Your task to perform on an android device: toggle location history Image 0: 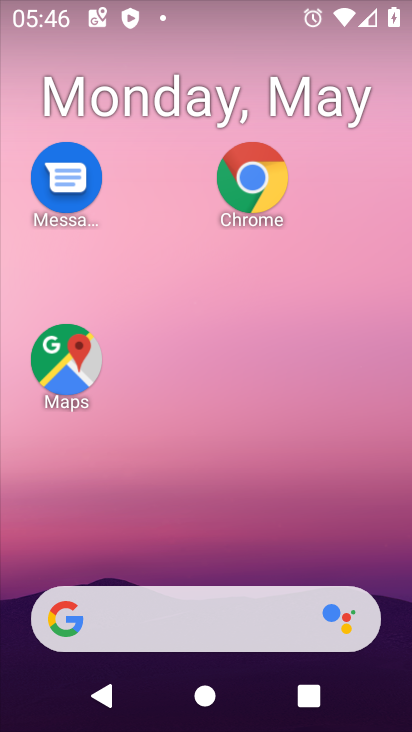
Step 0: drag from (204, 556) to (179, 61)
Your task to perform on an android device: toggle location history Image 1: 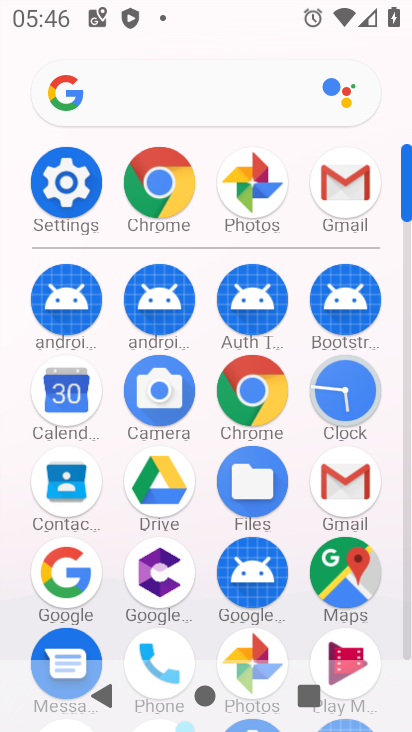
Step 1: click (59, 203)
Your task to perform on an android device: toggle location history Image 2: 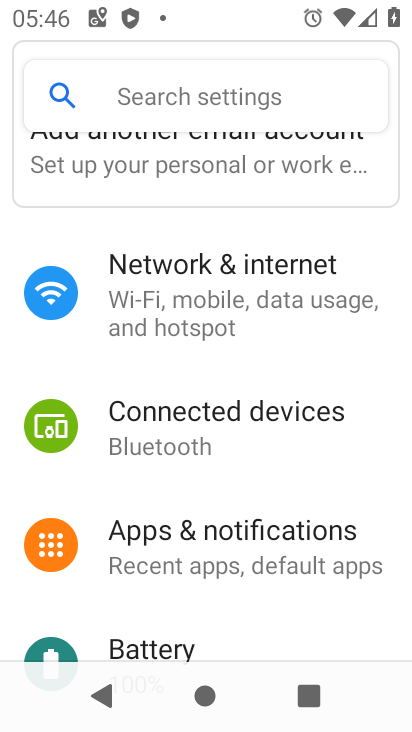
Step 2: drag from (240, 578) to (249, 265)
Your task to perform on an android device: toggle location history Image 3: 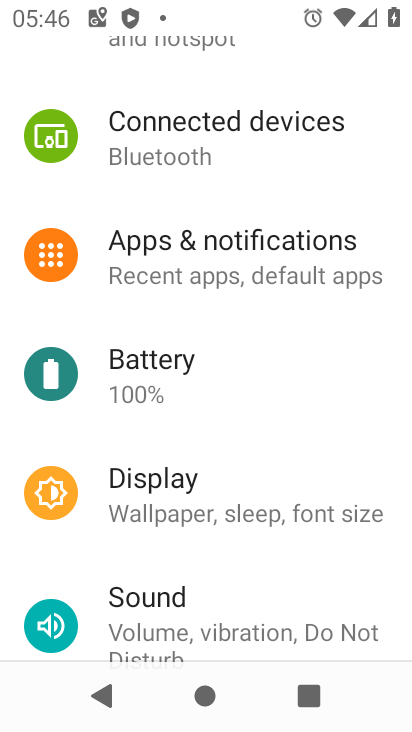
Step 3: drag from (188, 587) to (184, 159)
Your task to perform on an android device: toggle location history Image 4: 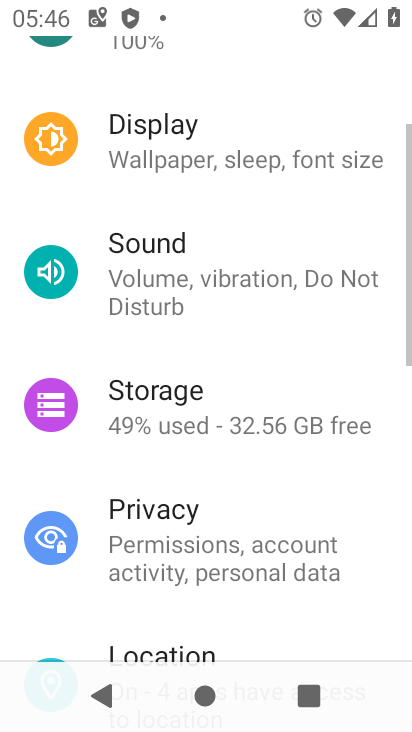
Step 4: drag from (195, 548) to (189, 123)
Your task to perform on an android device: toggle location history Image 5: 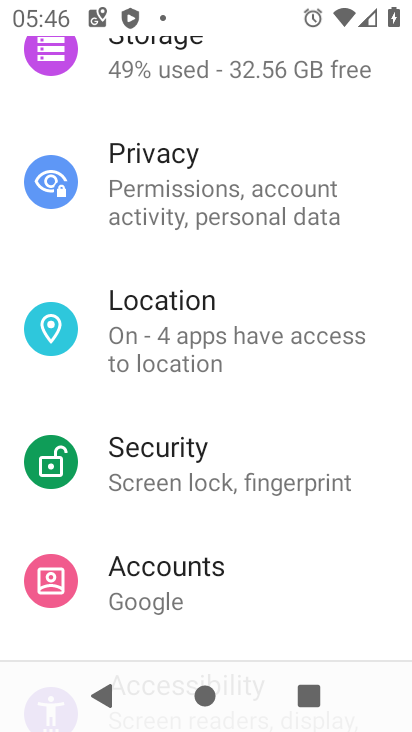
Step 5: click (148, 348)
Your task to perform on an android device: toggle location history Image 6: 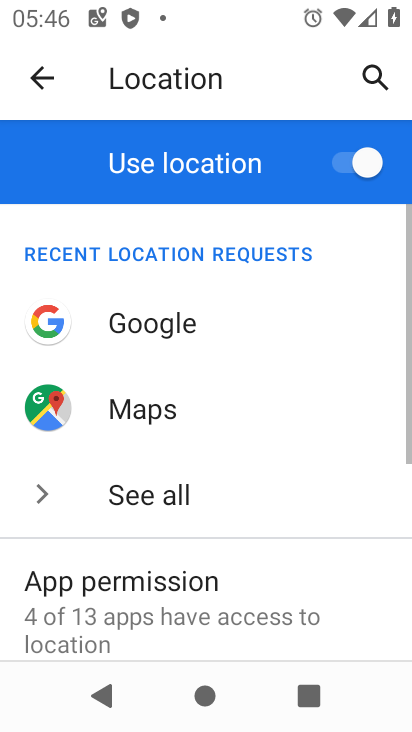
Step 6: drag from (174, 505) to (174, 214)
Your task to perform on an android device: toggle location history Image 7: 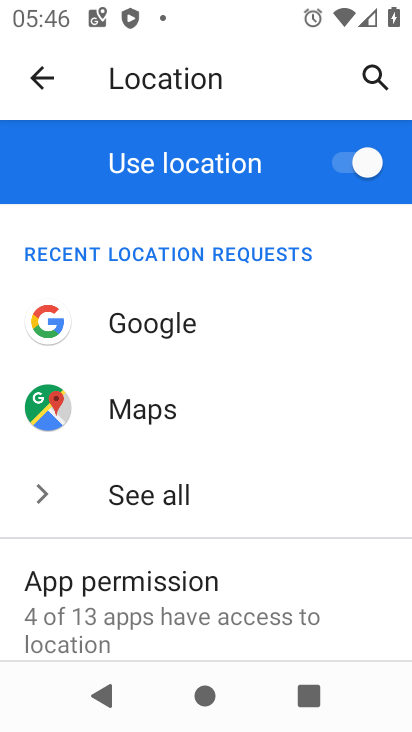
Step 7: drag from (181, 556) to (181, 158)
Your task to perform on an android device: toggle location history Image 8: 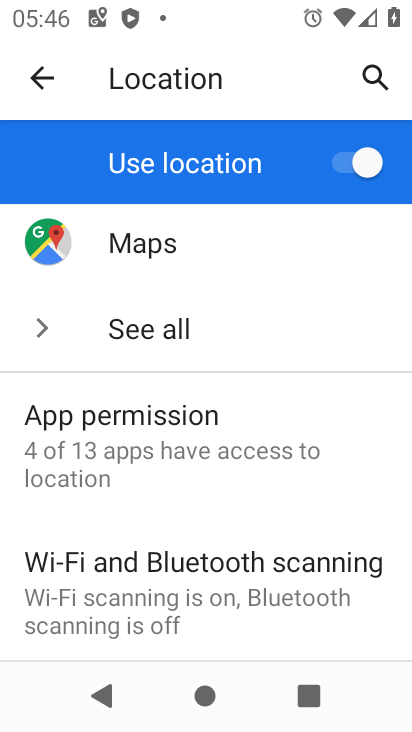
Step 8: drag from (160, 545) to (172, 162)
Your task to perform on an android device: toggle location history Image 9: 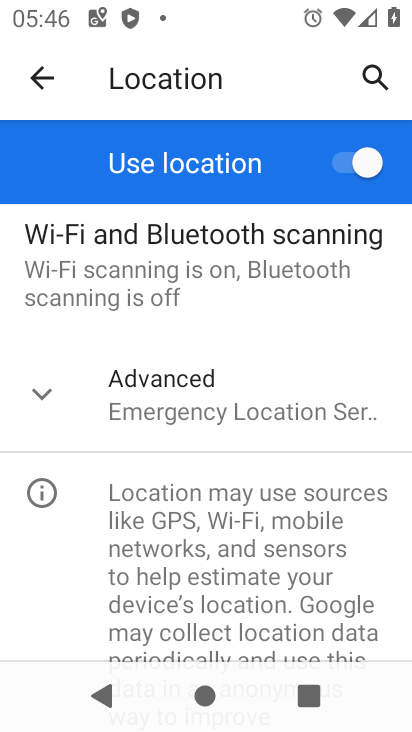
Step 9: click (122, 409)
Your task to perform on an android device: toggle location history Image 10: 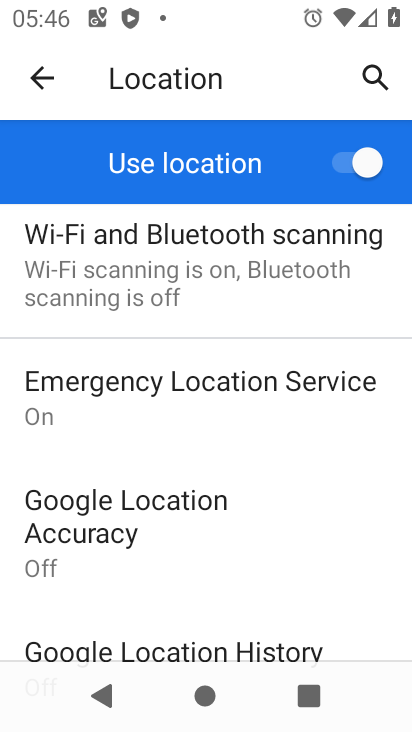
Step 10: drag from (156, 605) to (146, 137)
Your task to perform on an android device: toggle location history Image 11: 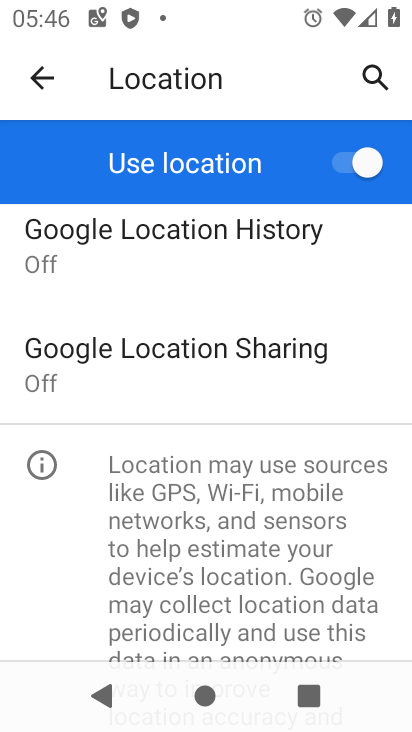
Step 11: click (178, 284)
Your task to perform on an android device: toggle location history Image 12: 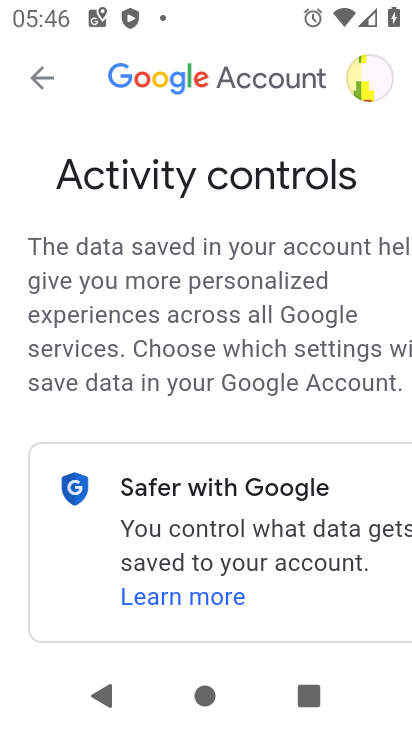
Step 12: drag from (224, 303) to (211, 228)
Your task to perform on an android device: toggle location history Image 13: 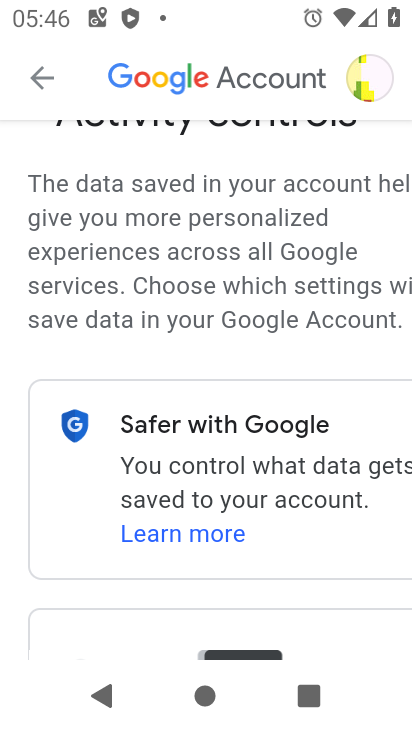
Step 13: drag from (231, 571) to (204, 173)
Your task to perform on an android device: toggle location history Image 14: 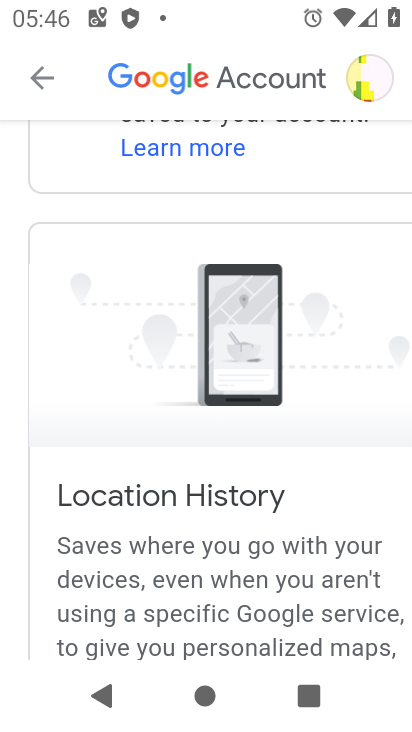
Step 14: drag from (295, 502) to (309, 150)
Your task to perform on an android device: toggle location history Image 15: 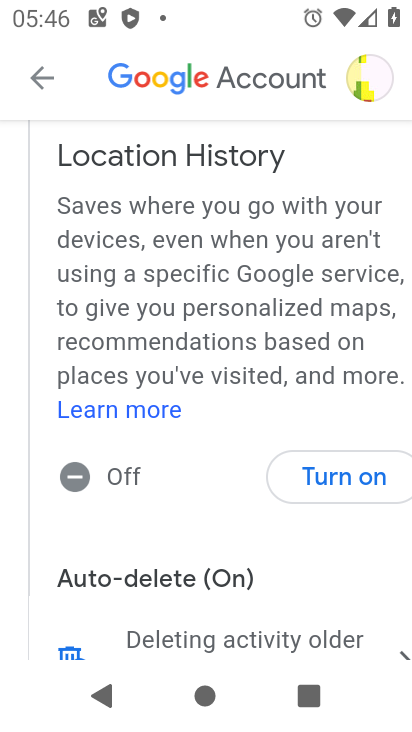
Step 15: click (326, 482)
Your task to perform on an android device: toggle location history Image 16: 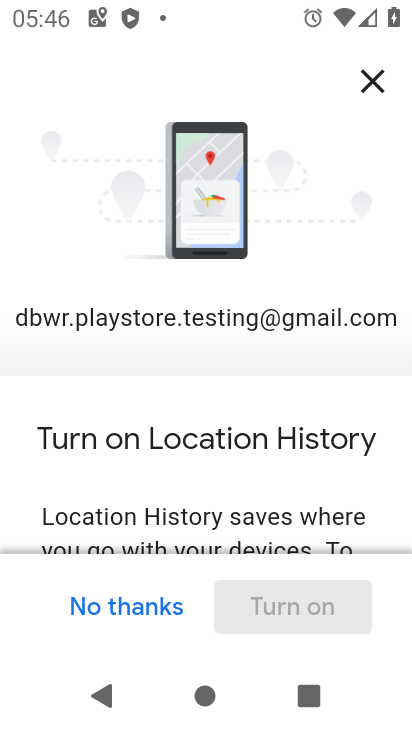
Step 16: drag from (215, 487) to (200, 60)
Your task to perform on an android device: toggle location history Image 17: 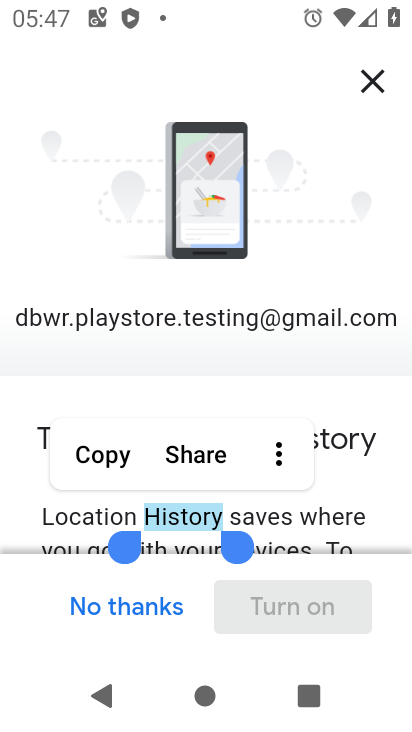
Step 17: click (283, 518)
Your task to perform on an android device: toggle location history Image 18: 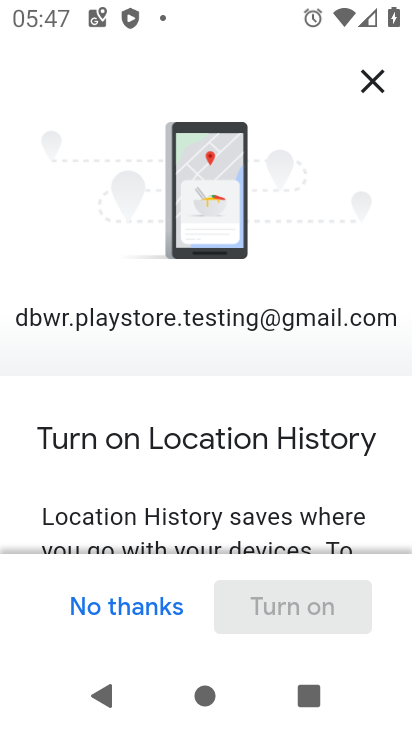
Step 18: drag from (275, 488) to (221, 76)
Your task to perform on an android device: toggle location history Image 19: 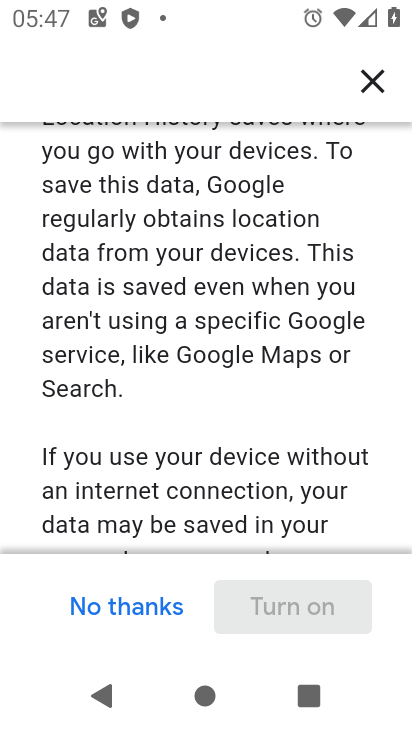
Step 19: drag from (192, 507) to (186, 124)
Your task to perform on an android device: toggle location history Image 20: 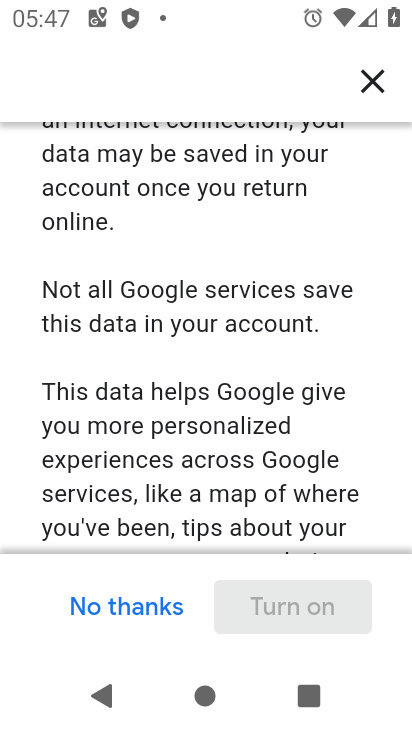
Step 20: drag from (171, 485) to (202, 57)
Your task to perform on an android device: toggle location history Image 21: 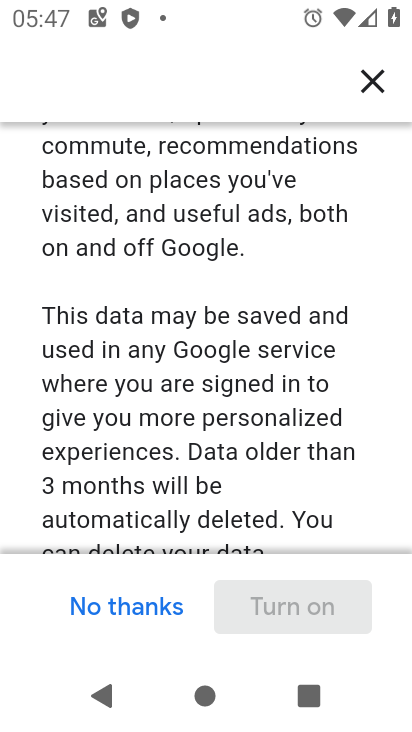
Step 21: drag from (252, 496) to (258, 0)
Your task to perform on an android device: toggle location history Image 22: 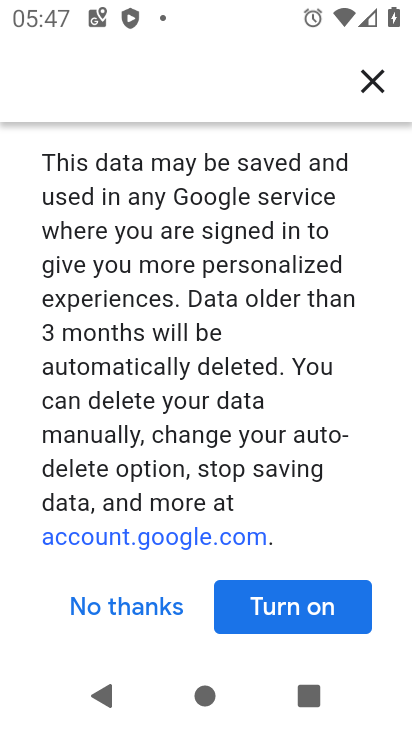
Step 22: click (287, 604)
Your task to perform on an android device: toggle location history Image 23: 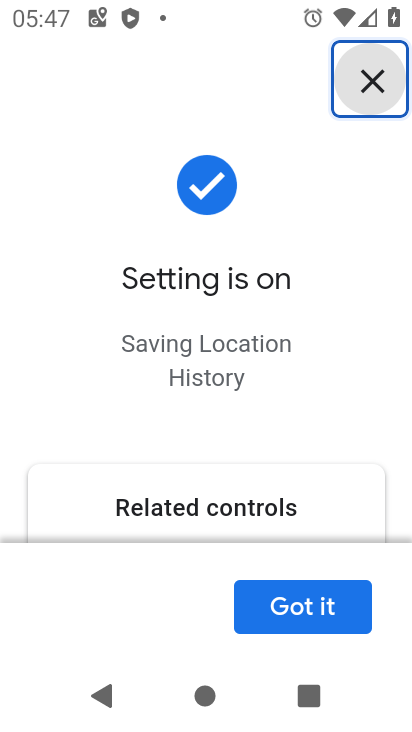
Step 23: click (297, 620)
Your task to perform on an android device: toggle location history Image 24: 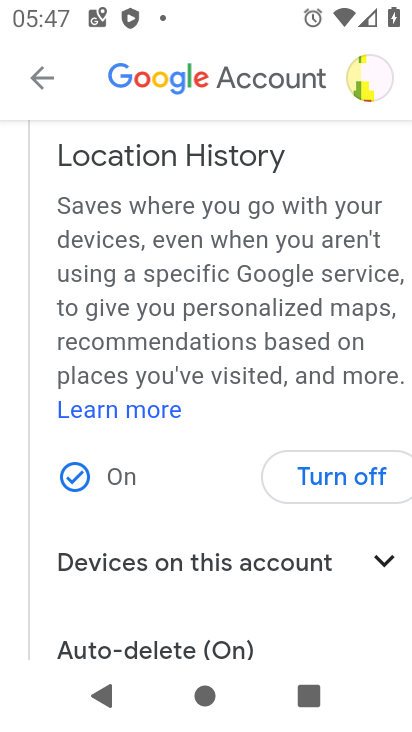
Step 24: task complete